Your task to perform on an android device: manage bookmarks in the chrome app Image 0: 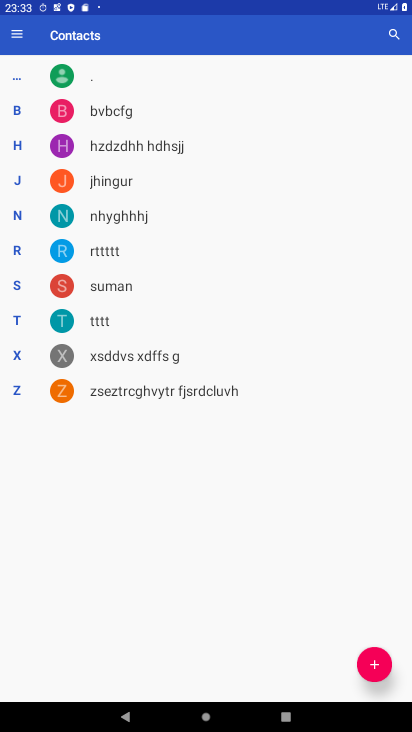
Step 0: press home button
Your task to perform on an android device: manage bookmarks in the chrome app Image 1: 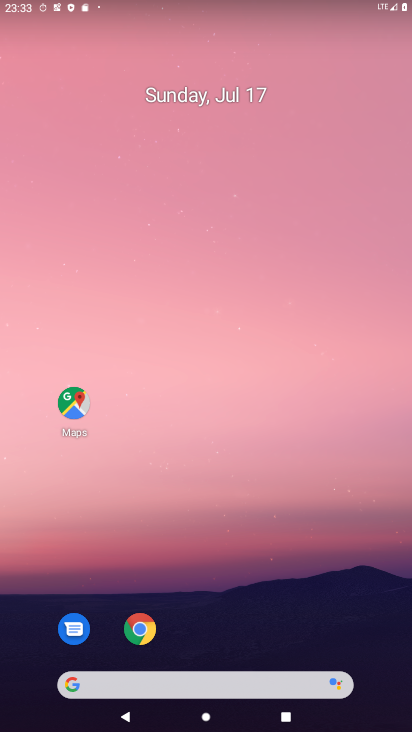
Step 1: drag from (235, 707) to (237, 187)
Your task to perform on an android device: manage bookmarks in the chrome app Image 2: 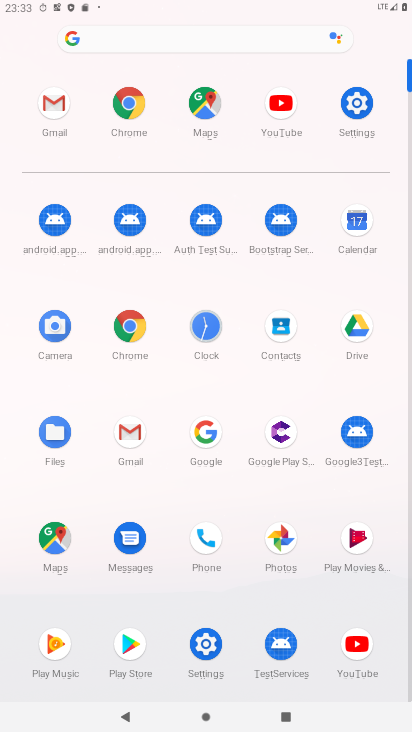
Step 2: click (131, 322)
Your task to perform on an android device: manage bookmarks in the chrome app Image 3: 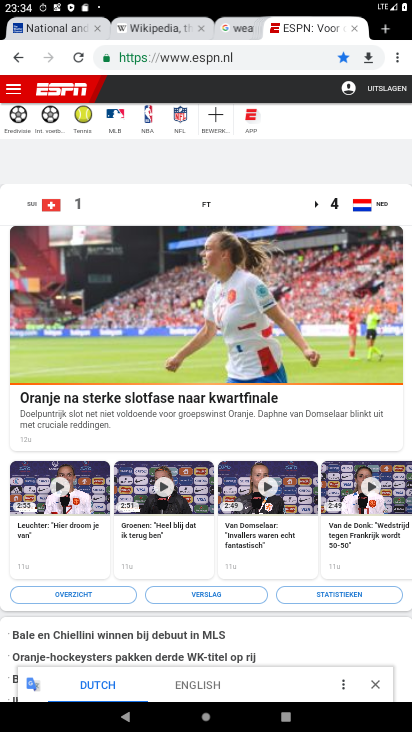
Step 3: click (397, 60)
Your task to perform on an android device: manage bookmarks in the chrome app Image 4: 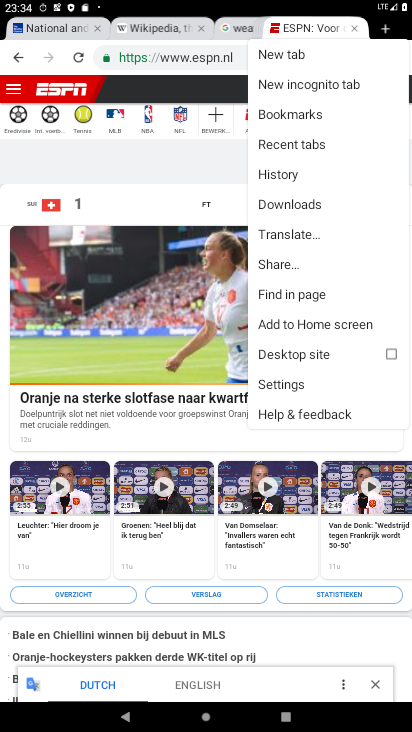
Step 4: click (282, 111)
Your task to perform on an android device: manage bookmarks in the chrome app Image 5: 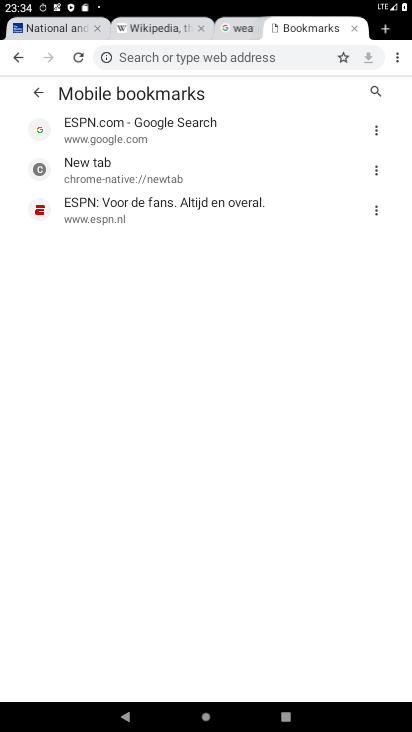
Step 5: click (374, 208)
Your task to perform on an android device: manage bookmarks in the chrome app Image 6: 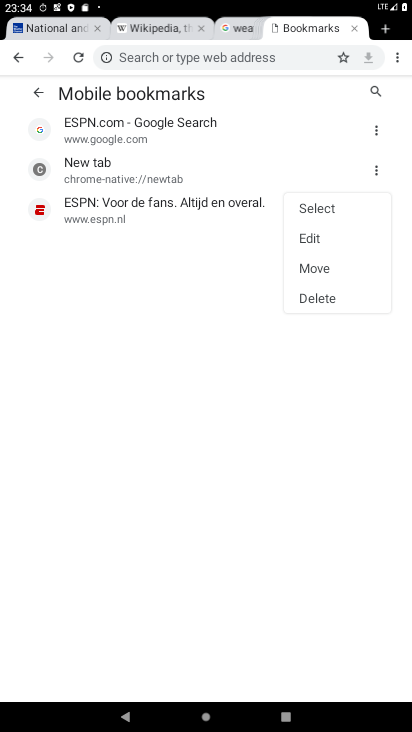
Step 6: click (306, 236)
Your task to perform on an android device: manage bookmarks in the chrome app Image 7: 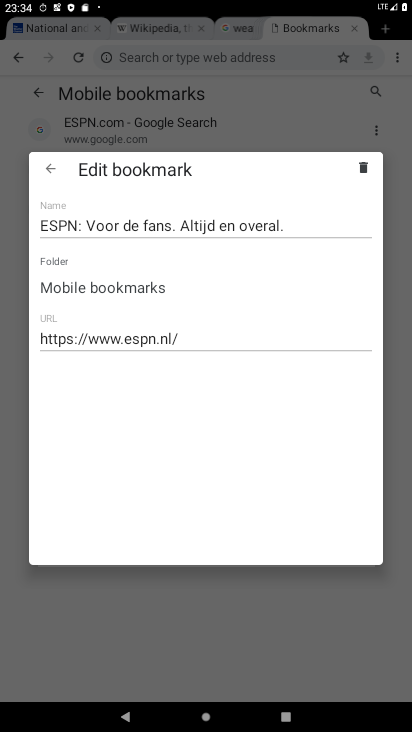
Step 7: click (174, 226)
Your task to perform on an android device: manage bookmarks in the chrome app Image 8: 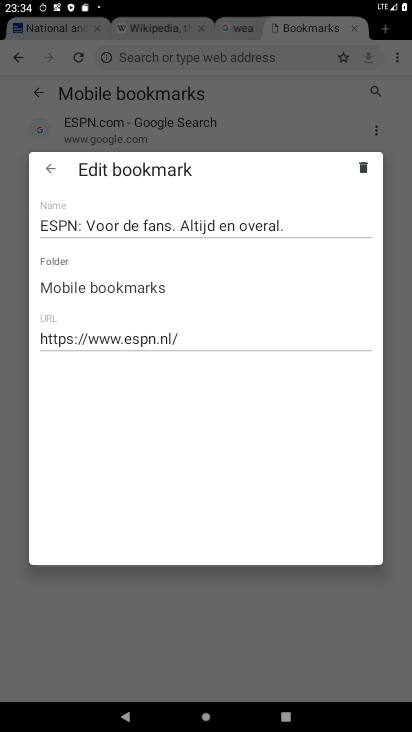
Step 8: click (174, 226)
Your task to perform on an android device: manage bookmarks in the chrome app Image 9: 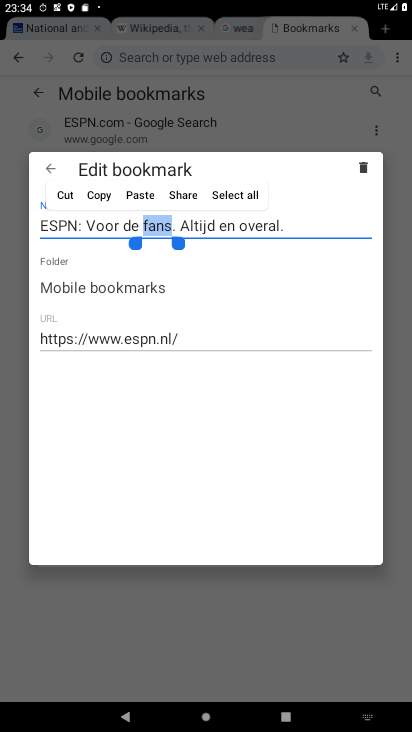
Step 9: click (58, 188)
Your task to perform on an android device: manage bookmarks in the chrome app Image 10: 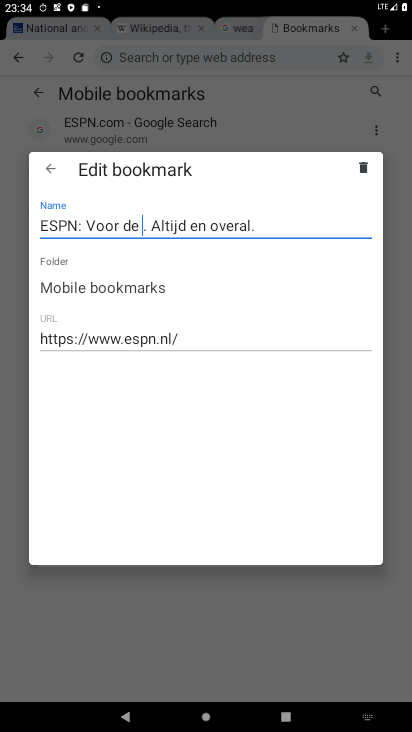
Step 10: click (178, 609)
Your task to perform on an android device: manage bookmarks in the chrome app Image 11: 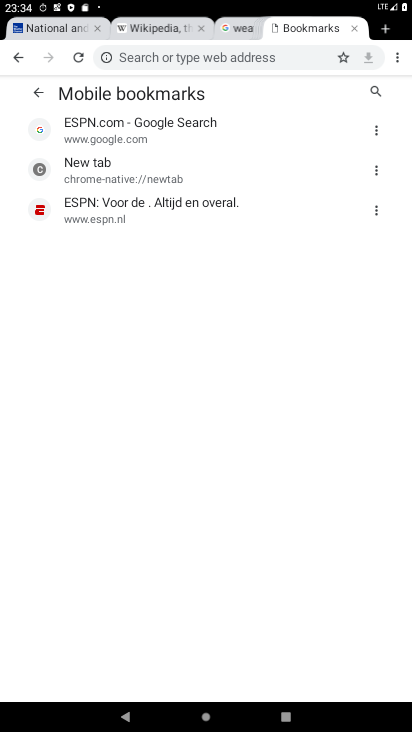
Step 11: task complete